Your task to perform on an android device: Check the news Image 0: 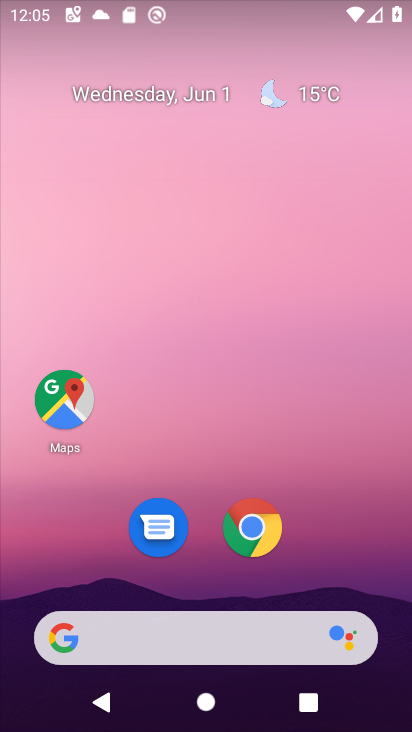
Step 0: click (86, 628)
Your task to perform on an android device: Check the news Image 1: 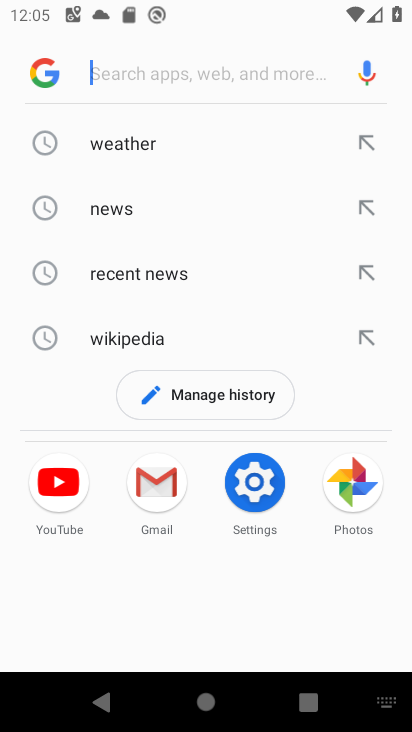
Step 1: click (114, 200)
Your task to perform on an android device: Check the news Image 2: 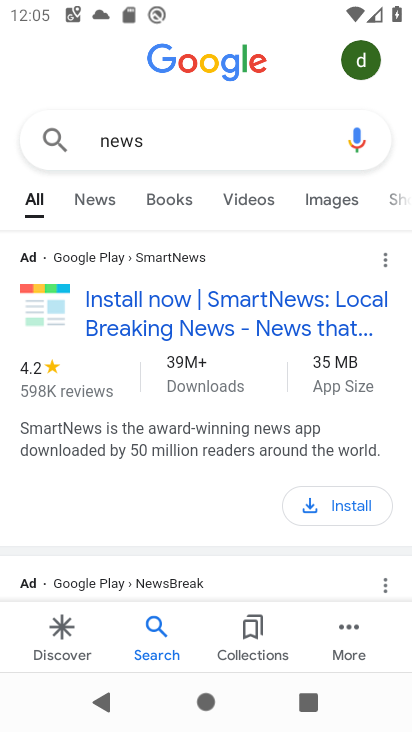
Step 2: click (99, 200)
Your task to perform on an android device: Check the news Image 3: 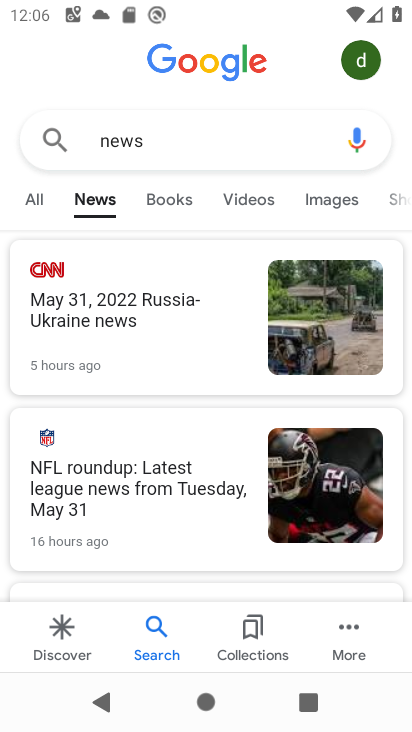
Step 3: task complete